Your task to perform on an android device: check out phone information Image 0: 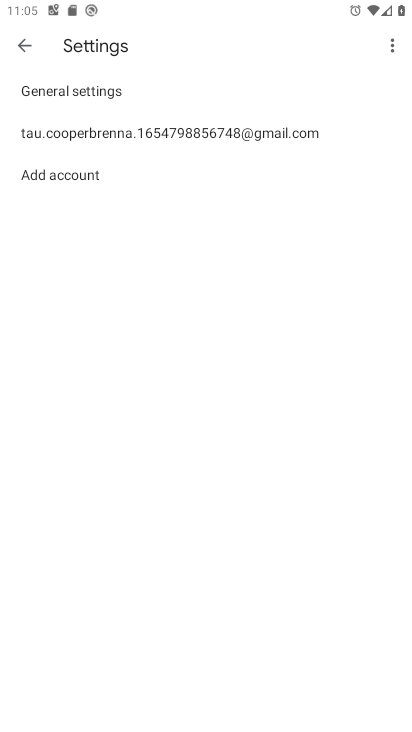
Step 0: drag from (214, 568) to (220, 340)
Your task to perform on an android device: check out phone information Image 1: 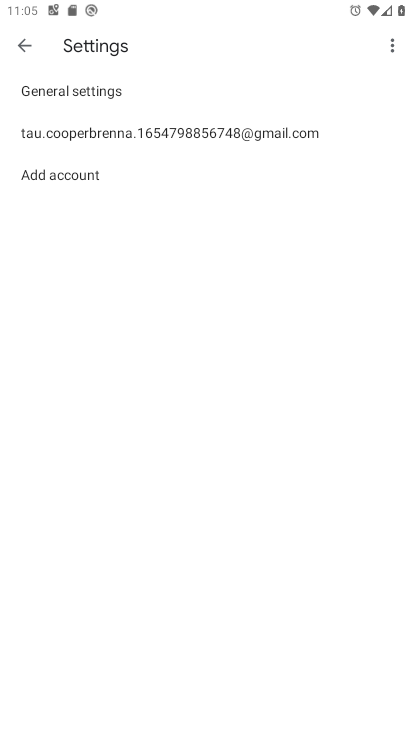
Step 1: press home button
Your task to perform on an android device: check out phone information Image 2: 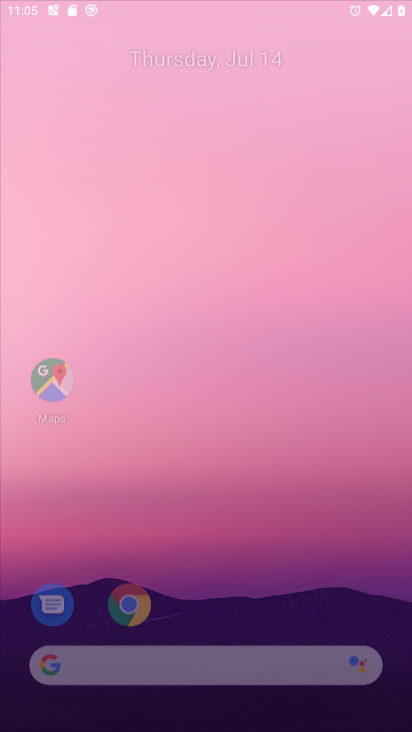
Step 2: drag from (225, 579) to (222, 169)
Your task to perform on an android device: check out phone information Image 3: 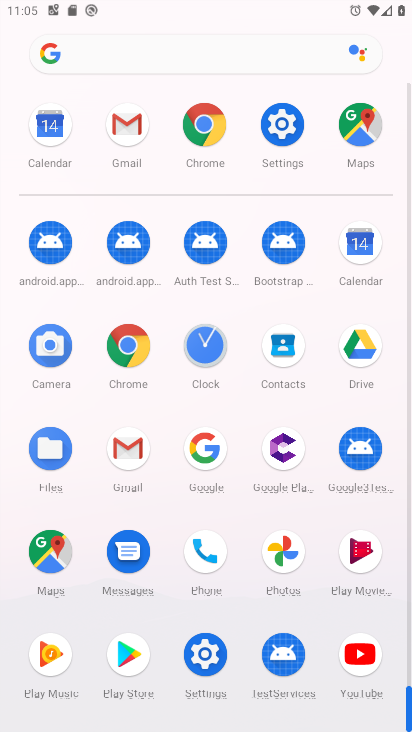
Step 3: click (199, 667)
Your task to perform on an android device: check out phone information Image 4: 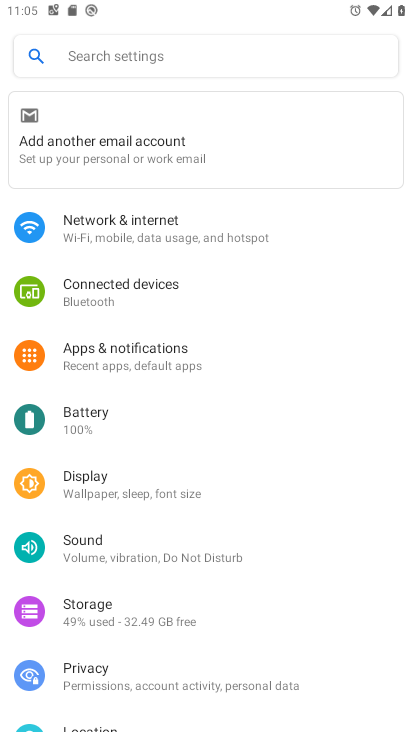
Step 4: drag from (190, 642) to (242, 76)
Your task to perform on an android device: check out phone information Image 5: 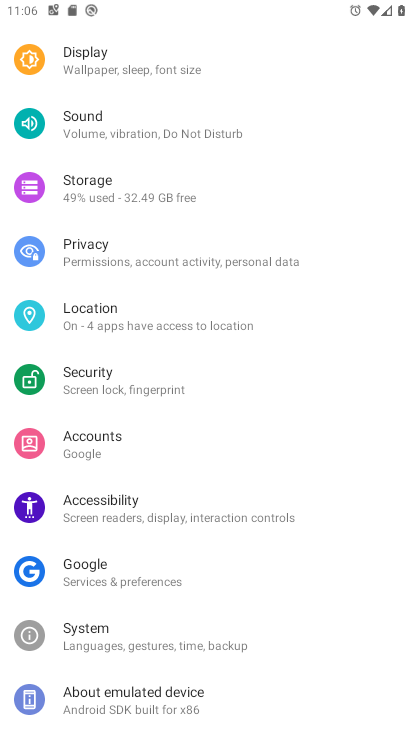
Step 5: click (144, 700)
Your task to perform on an android device: check out phone information Image 6: 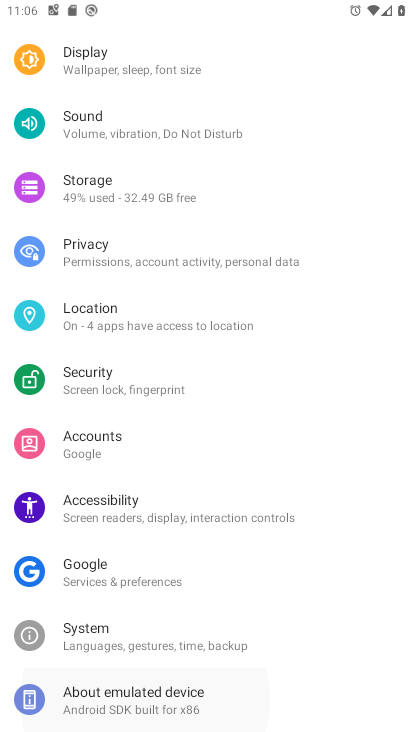
Step 6: click (142, 695)
Your task to perform on an android device: check out phone information Image 7: 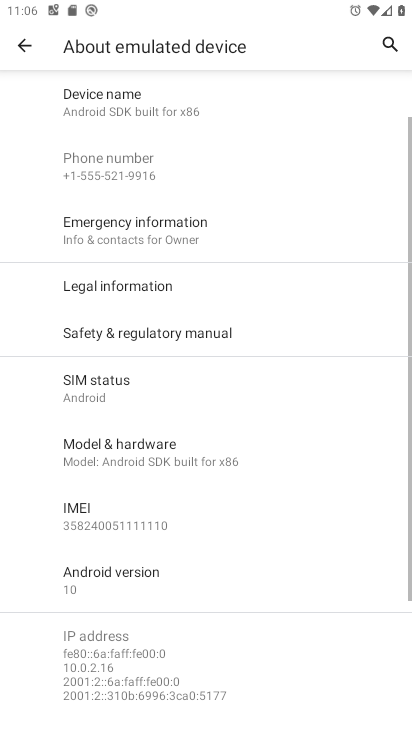
Step 7: task complete